Your task to perform on an android device: change notification settings in the gmail app Image 0: 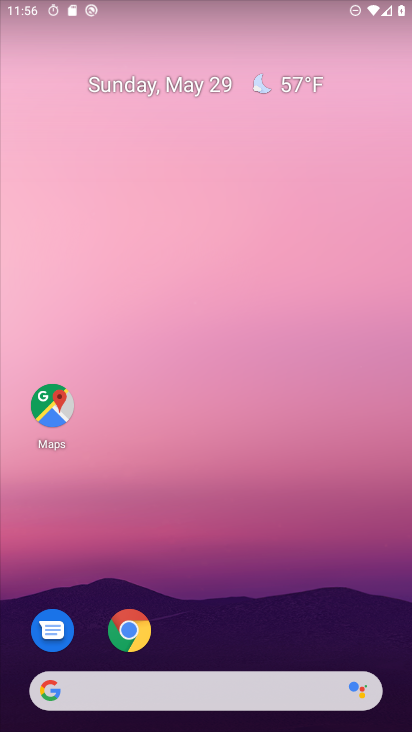
Step 0: drag from (261, 682) to (241, 262)
Your task to perform on an android device: change notification settings in the gmail app Image 1: 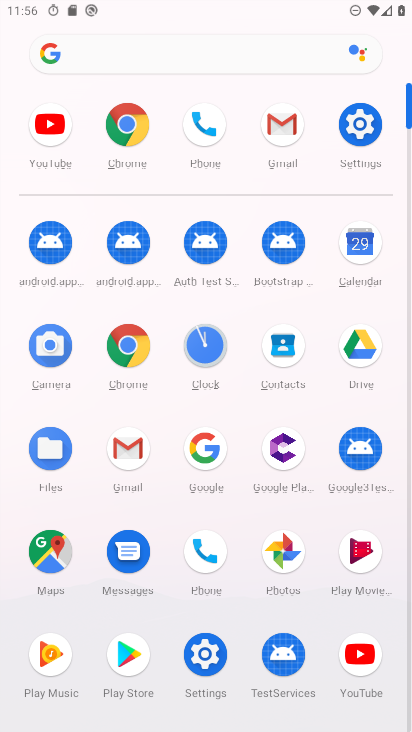
Step 1: click (131, 453)
Your task to perform on an android device: change notification settings in the gmail app Image 2: 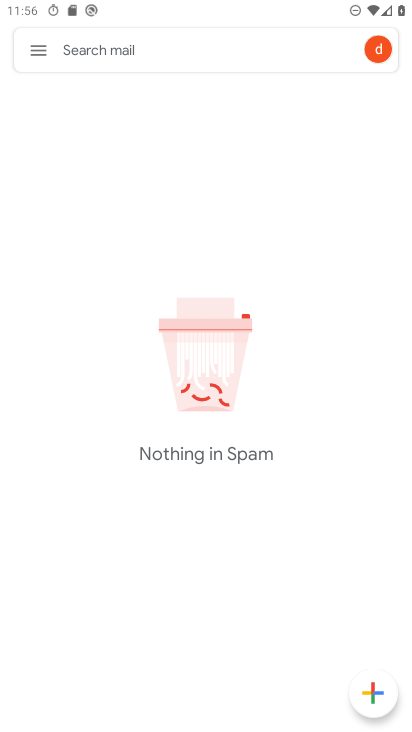
Step 2: click (40, 46)
Your task to perform on an android device: change notification settings in the gmail app Image 3: 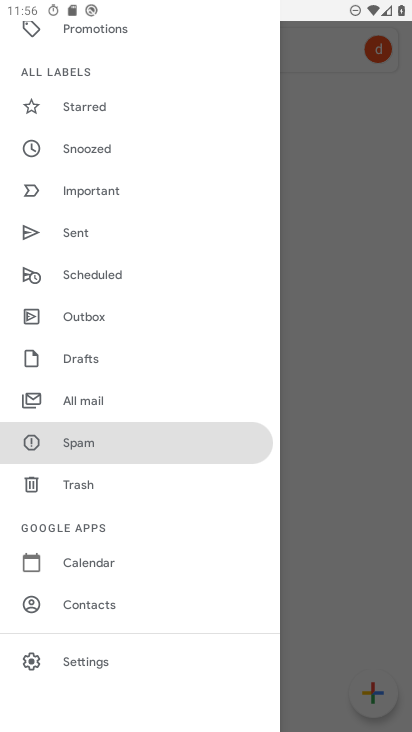
Step 3: click (114, 659)
Your task to perform on an android device: change notification settings in the gmail app Image 4: 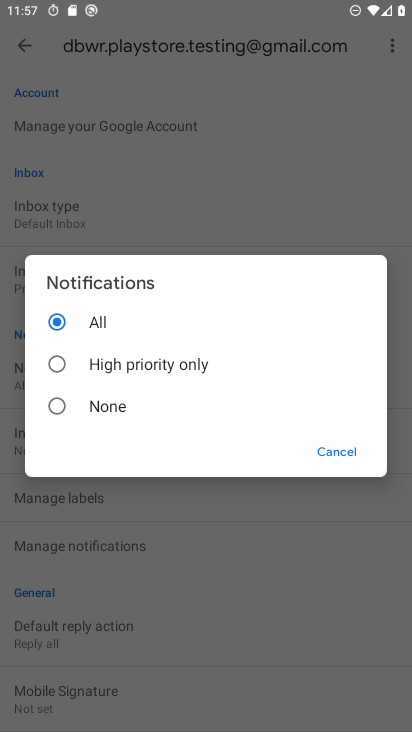
Step 4: task complete